Your task to perform on an android device: turn on airplane mode Image 0: 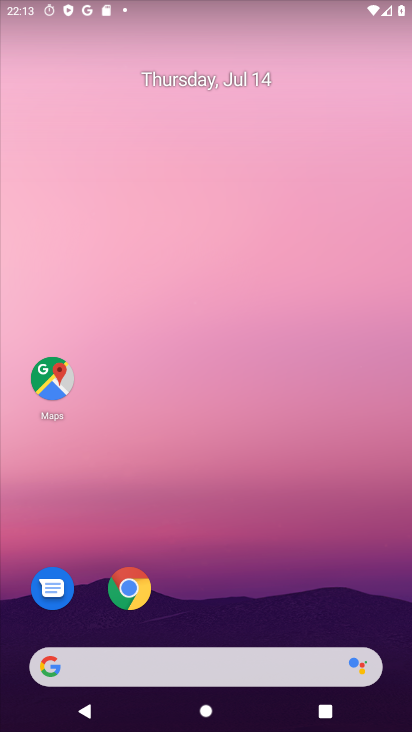
Step 0: drag from (237, 571) to (184, 51)
Your task to perform on an android device: turn on airplane mode Image 1: 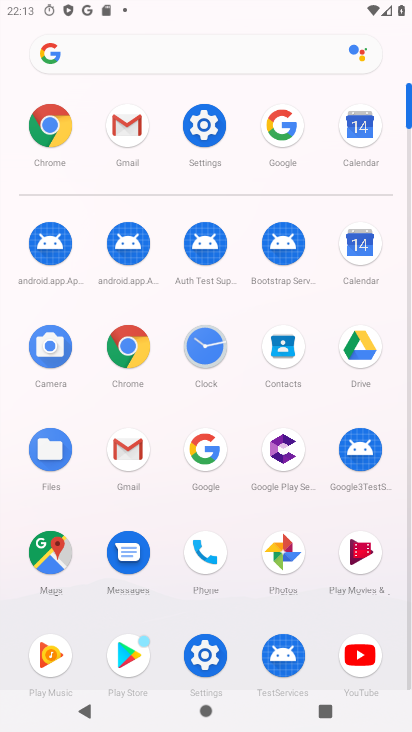
Step 1: click (209, 121)
Your task to perform on an android device: turn on airplane mode Image 2: 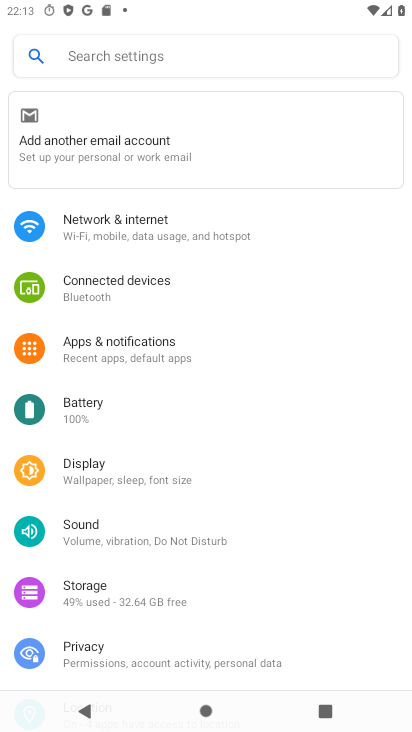
Step 2: click (133, 222)
Your task to perform on an android device: turn on airplane mode Image 3: 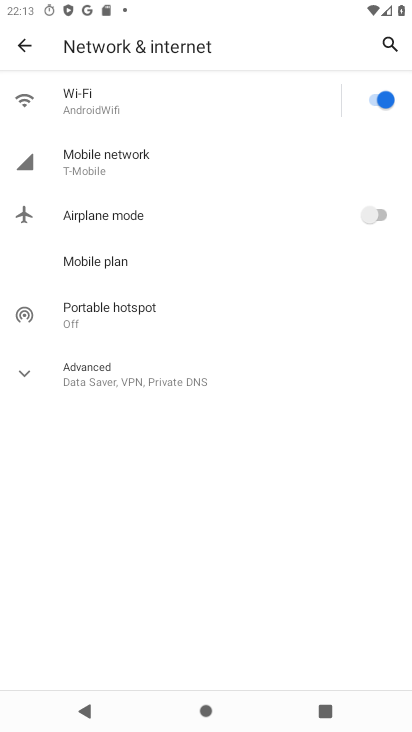
Step 3: click (375, 211)
Your task to perform on an android device: turn on airplane mode Image 4: 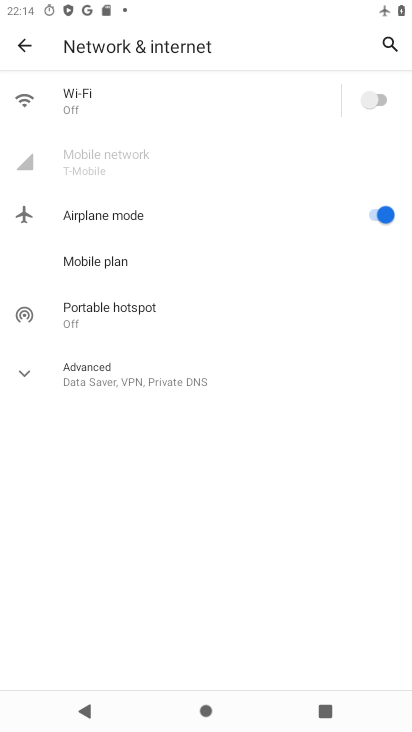
Step 4: task complete